Your task to perform on an android device: move a message to another label in the gmail app Image 0: 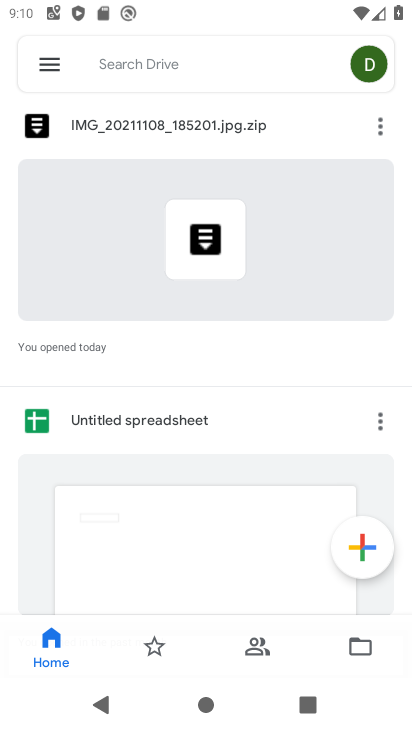
Step 0: press home button
Your task to perform on an android device: move a message to another label in the gmail app Image 1: 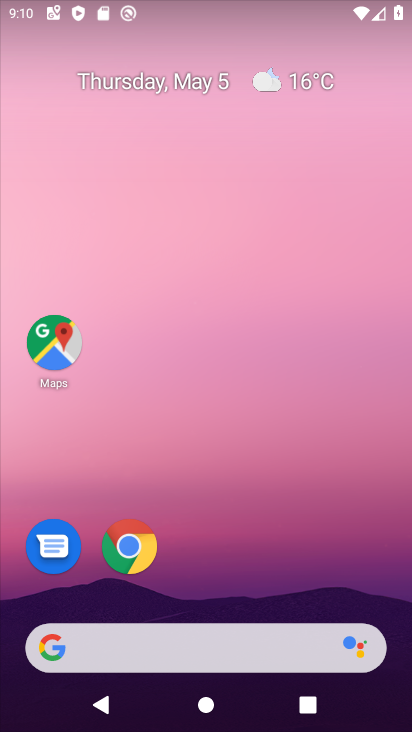
Step 1: drag from (123, 655) to (254, 49)
Your task to perform on an android device: move a message to another label in the gmail app Image 2: 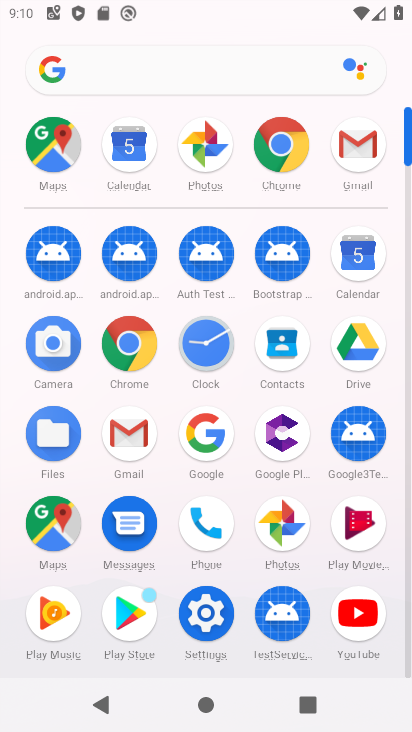
Step 2: click (347, 146)
Your task to perform on an android device: move a message to another label in the gmail app Image 3: 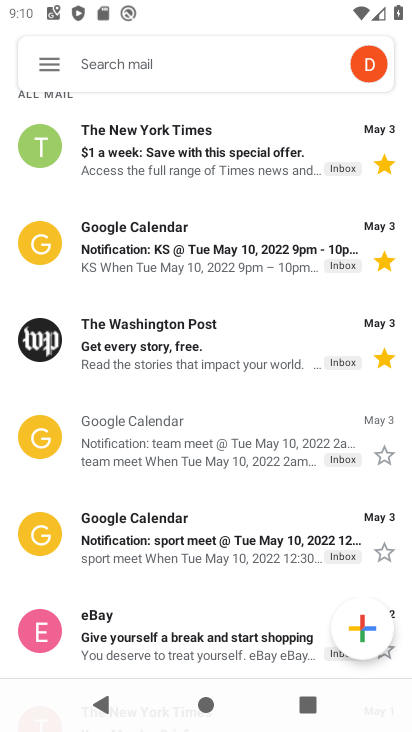
Step 3: click (46, 64)
Your task to perform on an android device: move a message to another label in the gmail app Image 4: 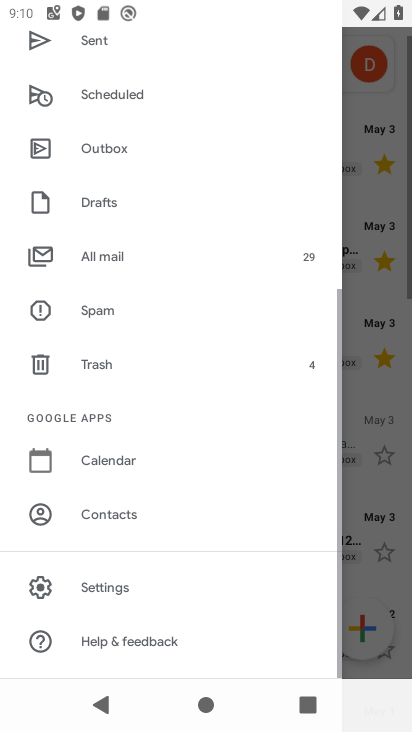
Step 4: drag from (230, 133) to (166, 624)
Your task to perform on an android device: move a message to another label in the gmail app Image 5: 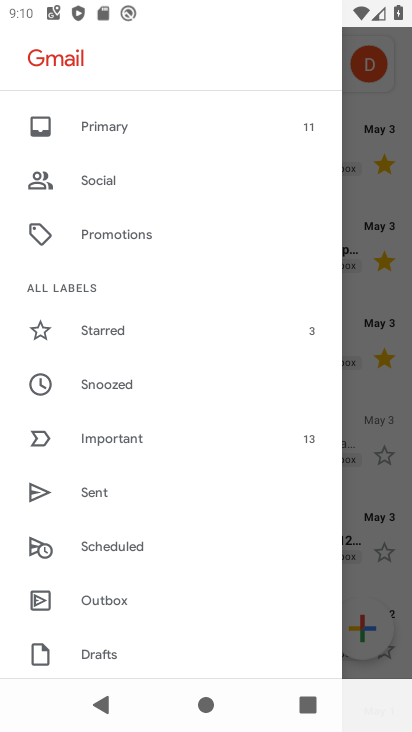
Step 5: click (147, 132)
Your task to perform on an android device: move a message to another label in the gmail app Image 6: 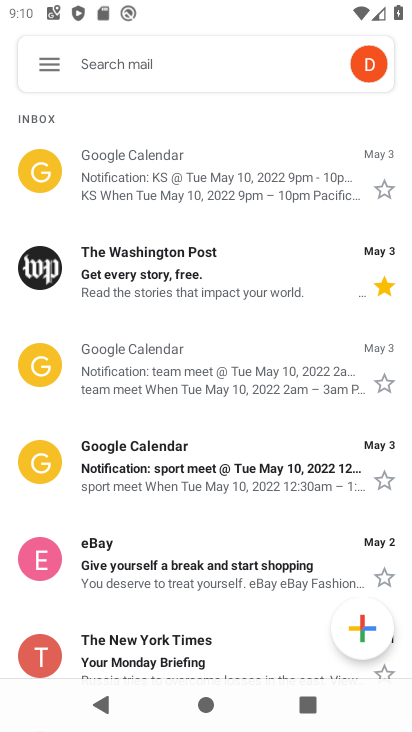
Step 6: click (173, 190)
Your task to perform on an android device: move a message to another label in the gmail app Image 7: 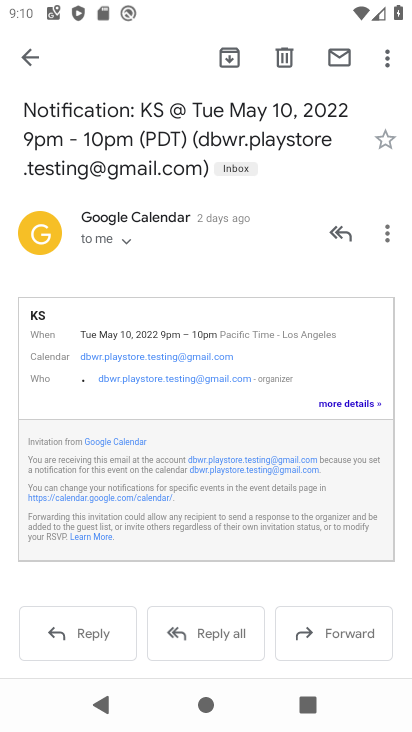
Step 7: click (240, 169)
Your task to perform on an android device: move a message to another label in the gmail app Image 8: 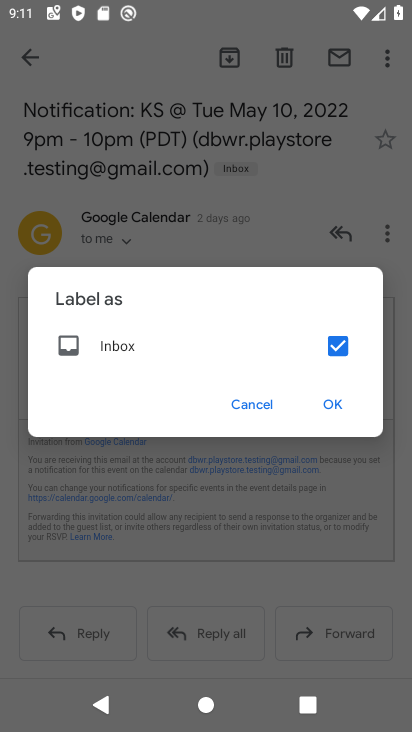
Step 8: click (340, 349)
Your task to perform on an android device: move a message to another label in the gmail app Image 9: 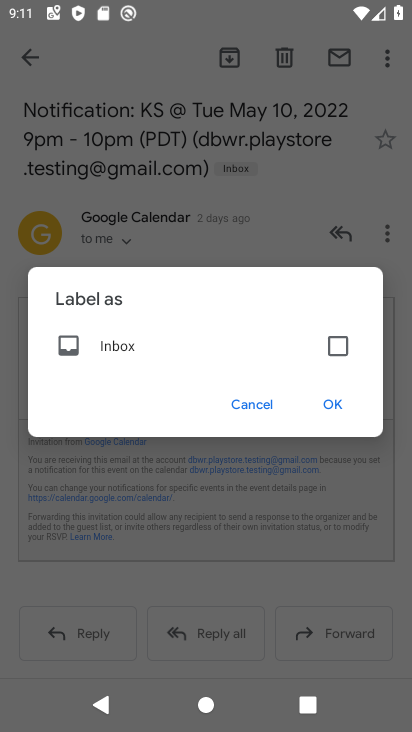
Step 9: click (334, 405)
Your task to perform on an android device: move a message to another label in the gmail app Image 10: 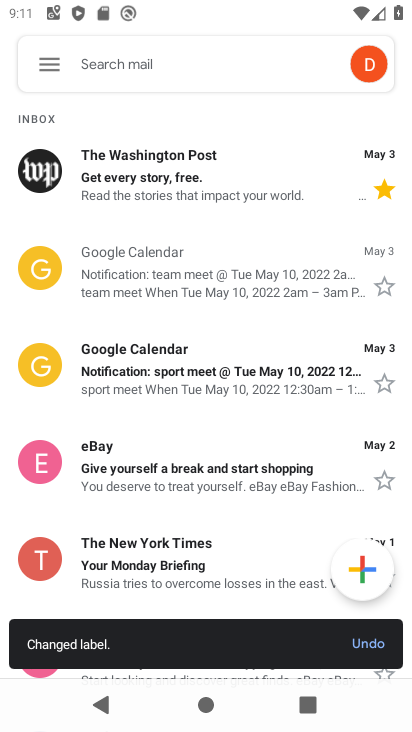
Step 10: task complete